Your task to perform on an android device: Open Yahoo.com Image 0: 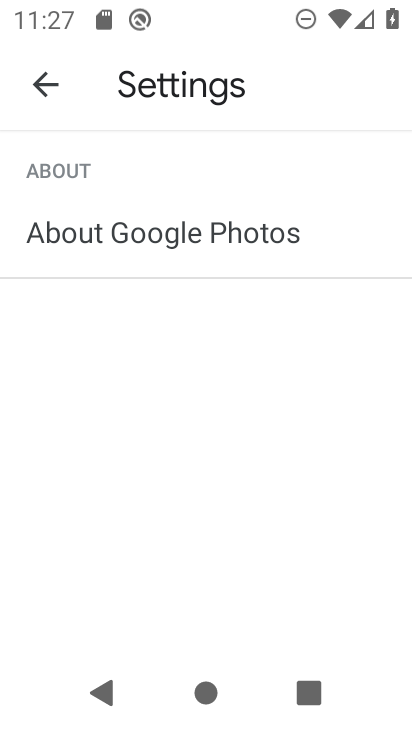
Step 0: press home button
Your task to perform on an android device: Open Yahoo.com Image 1: 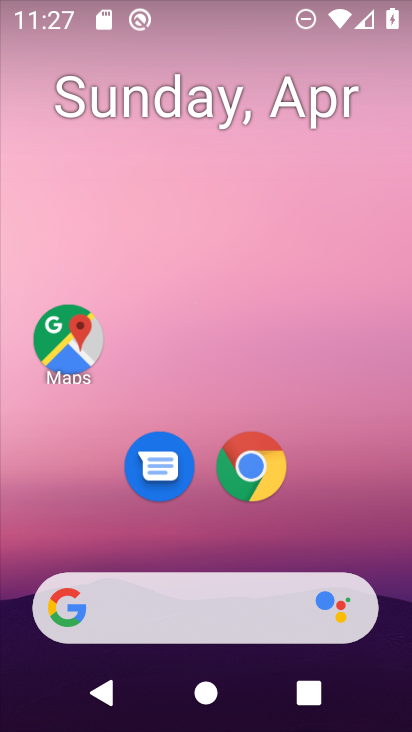
Step 1: drag from (375, 507) to (370, 115)
Your task to perform on an android device: Open Yahoo.com Image 2: 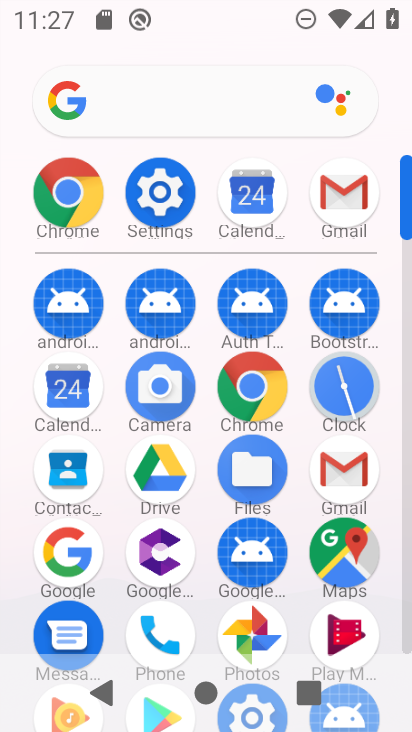
Step 2: click (249, 388)
Your task to perform on an android device: Open Yahoo.com Image 3: 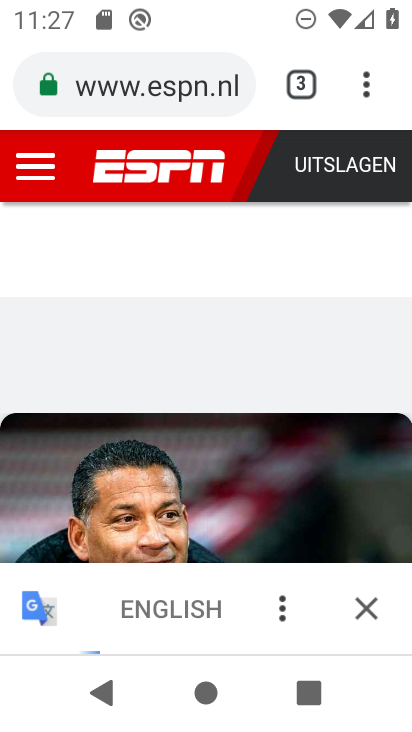
Step 3: click (170, 95)
Your task to perform on an android device: Open Yahoo.com Image 4: 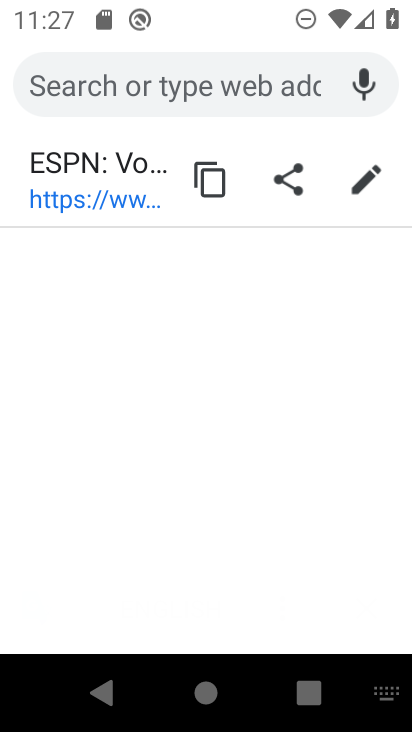
Step 4: type "yahoo.com"
Your task to perform on an android device: Open Yahoo.com Image 5: 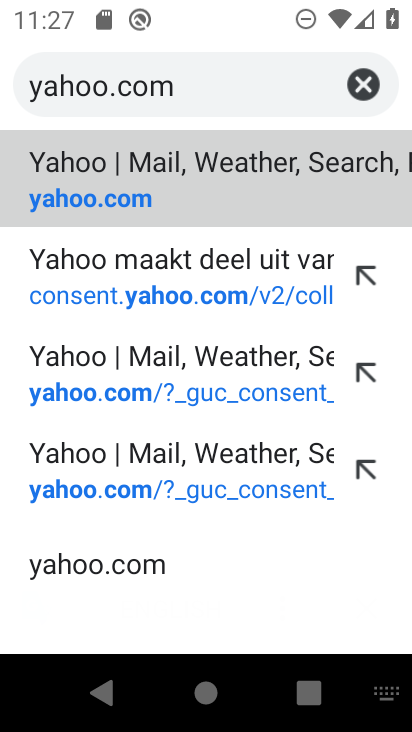
Step 5: click (150, 204)
Your task to perform on an android device: Open Yahoo.com Image 6: 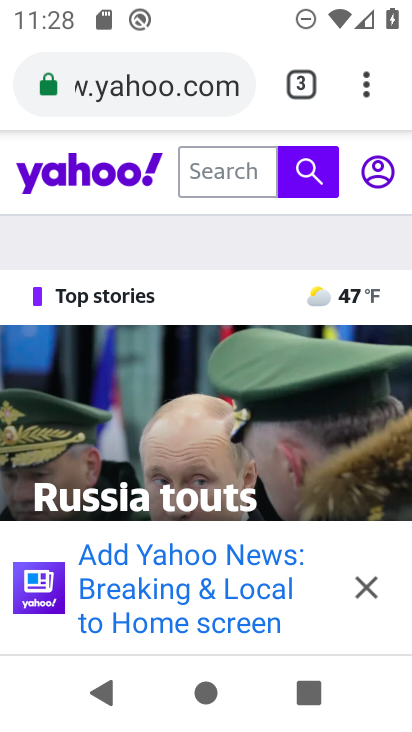
Step 6: task complete